Your task to perform on an android device: change notification settings in the gmail app Image 0: 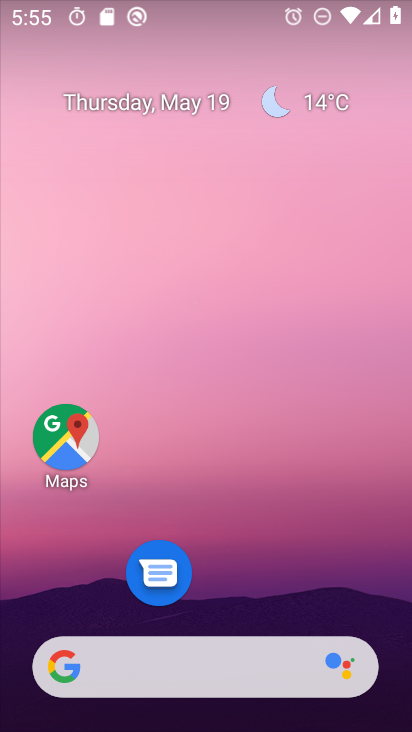
Step 0: click (206, 126)
Your task to perform on an android device: change notification settings in the gmail app Image 1: 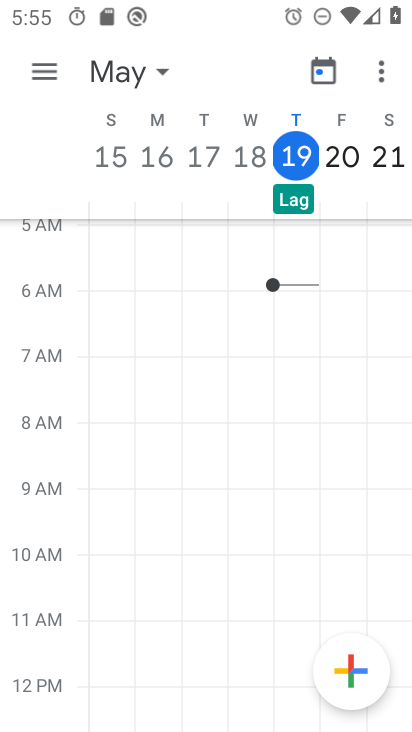
Step 1: press home button
Your task to perform on an android device: change notification settings in the gmail app Image 2: 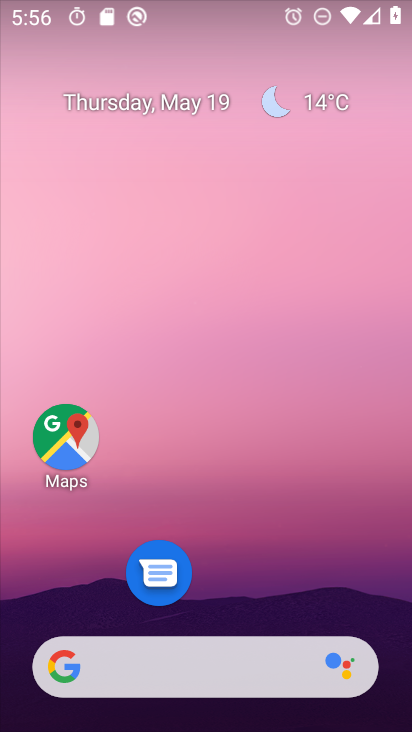
Step 2: drag from (230, 592) to (223, 114)
Your task to perform on an android device: change notification settings in the gmail app Image 3: 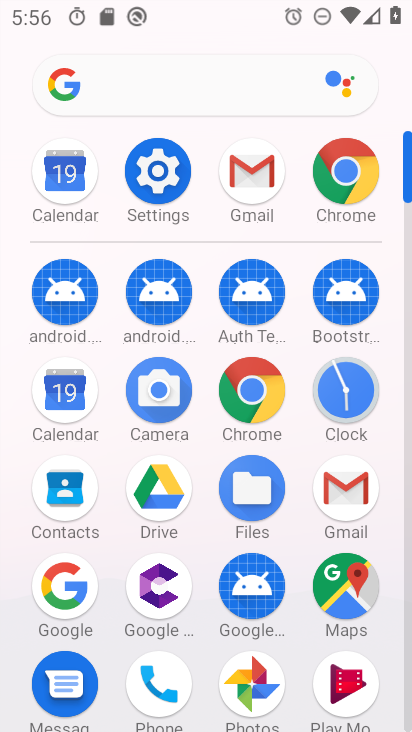
Step 3: click (351, 496)
Your task to perform on an android device: change notification settings in the gmail app Image 4: 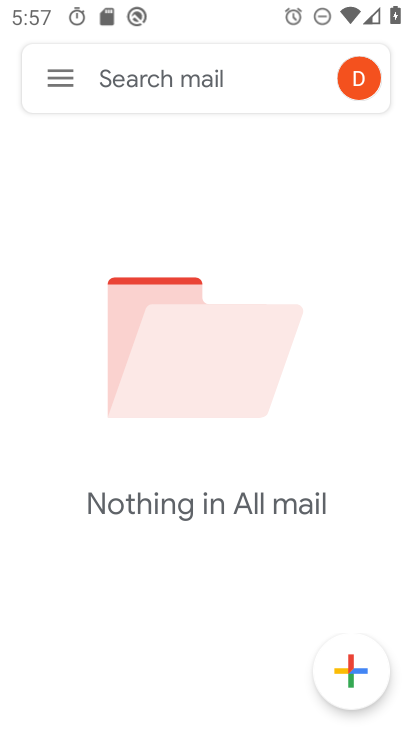
Step 4: click (62, 78)
Your task to perform on an android device: change notification settings in the gmail app Image 5: 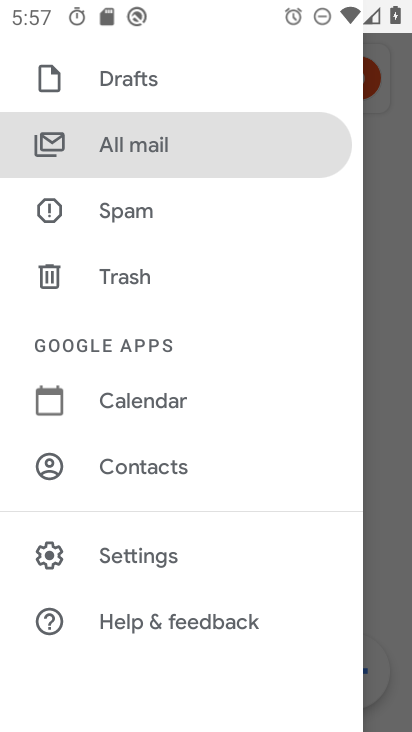
Step 5: click (144, 565)
Your task to perform on an android device: change notification settings in the gmail app Image 6: 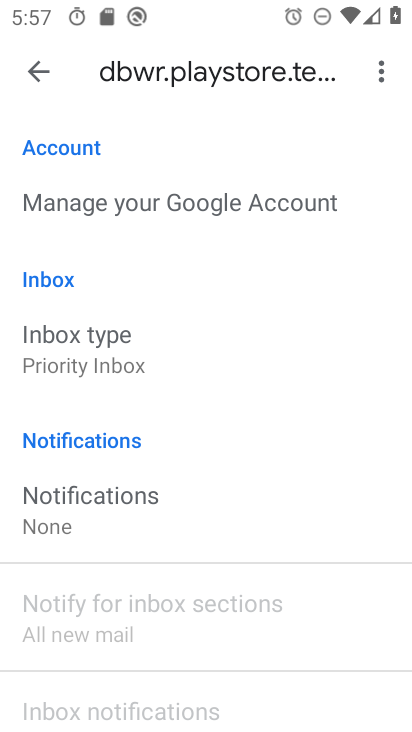
Step 6: click (65, 484)
Your task to perform on an android device: change notification settings in the gmail app Image 7: 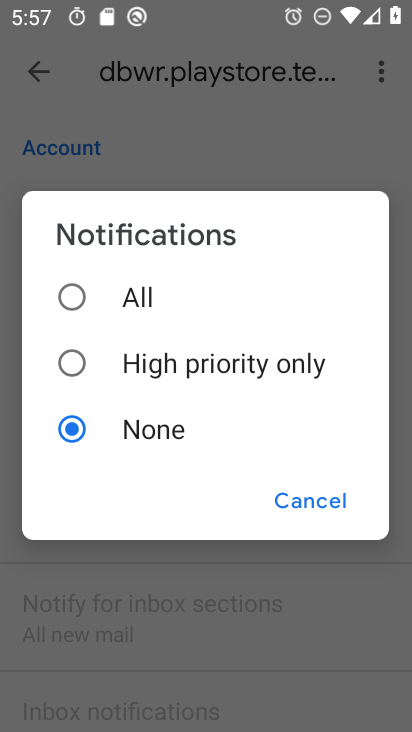
Step 7: click (66, 306)
Your task to perform on an android device: change notification settings in the gmail app Image 8: 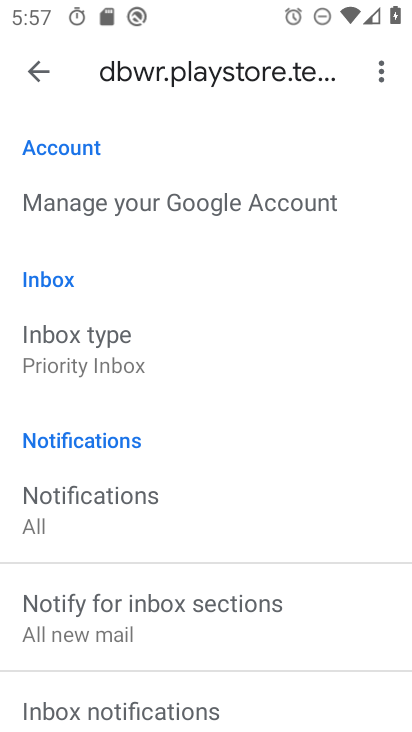
Step 8: task complete